Your task to perform on an android device: turn off improve location accuracy Image 0: 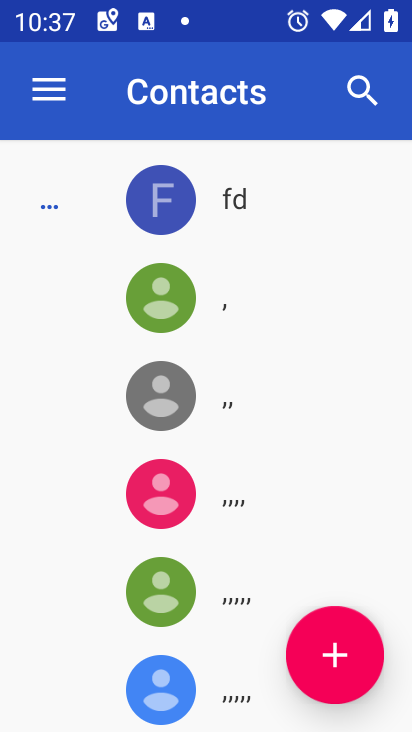
Step 0: press home button
Your task to perform on an android device: turn off improve location accuracy Image 1: 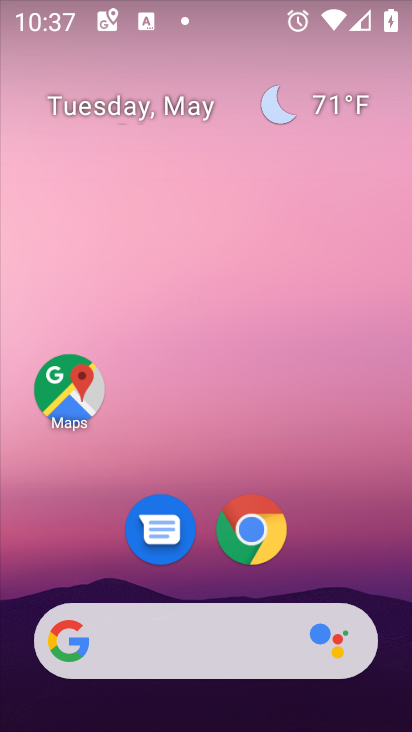
Step 1: drag from (274, 657) to (259, 182)
Your task to perform on an android device: turn off improve location accuracy Image 2: 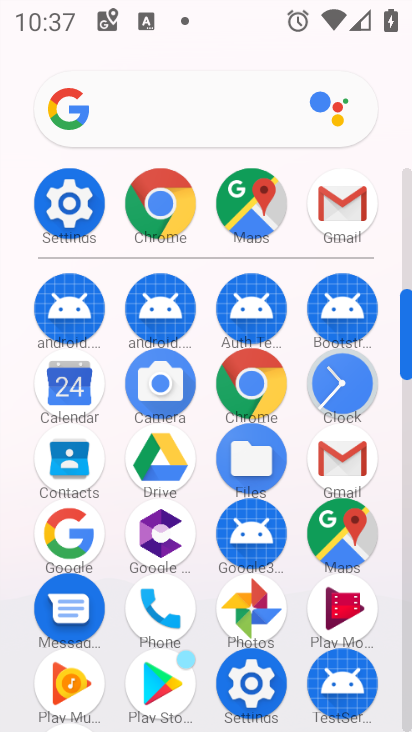
Step 2: click (92, 206)
Your task to perform on an android device: turn off improve location accuracy Image 3: 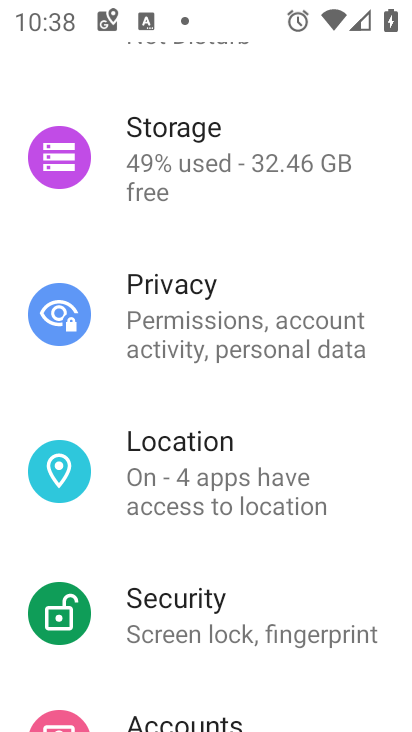
Step 3: drag from (194, 553) to (190, 444)
Your task to perform on an android device: turn off improve location accuracy Image 4: 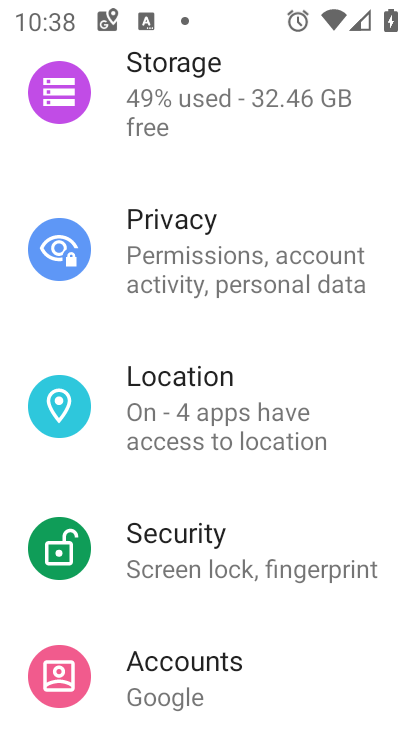
Step 4: drag from (221, 542) to (216, 418)
Your task to perform on an android device: turn off improve location accuracy Image 5: 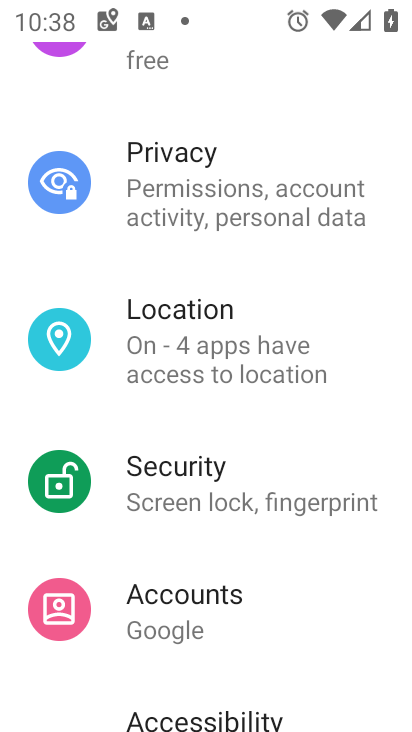
Step 5: click (261, 338)
Your task to perform on an android device: turn off improve location accuracy Image 6: 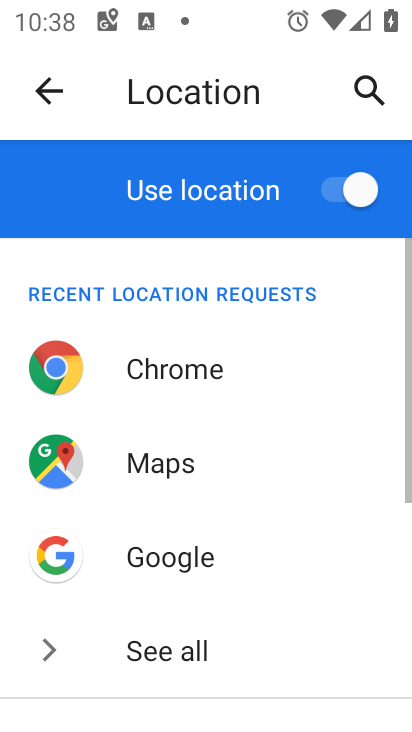
Step 6: drag from (270, 563) to (268, 482)
Your task to perform on an android device: turn off improve location accuracy Image 7: 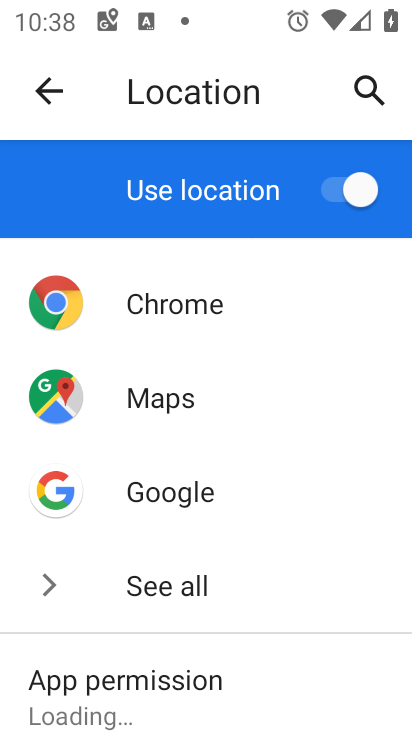
Step 7: drag from (254, 596) to (261, 318)
Your task to perform on an android device: turn off improve location accuracy Image 8: 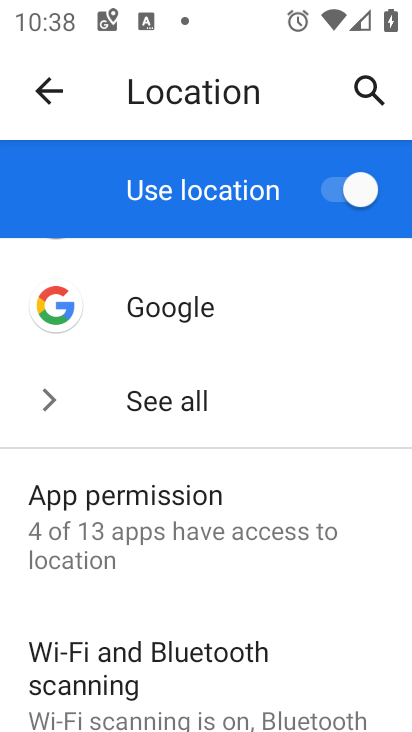
Step 8: drag from (267, 559) to (292, 337)
Your task to perform on an android device: turn off improve location accuracy Image 9: 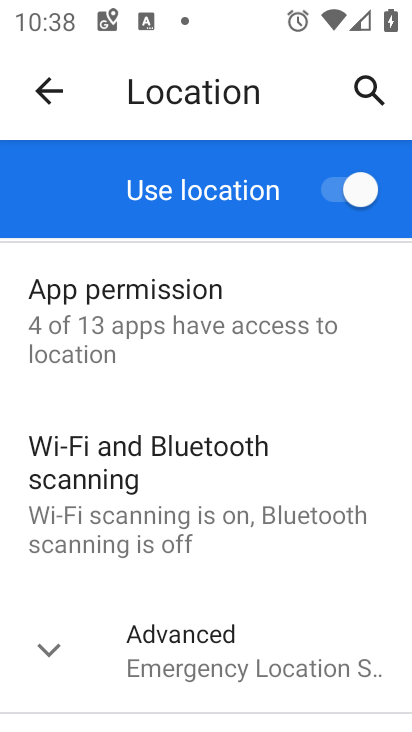
Step 9: click (230, 634)
Your task to perform on an android device: turn off improve location accuracy Image 10: 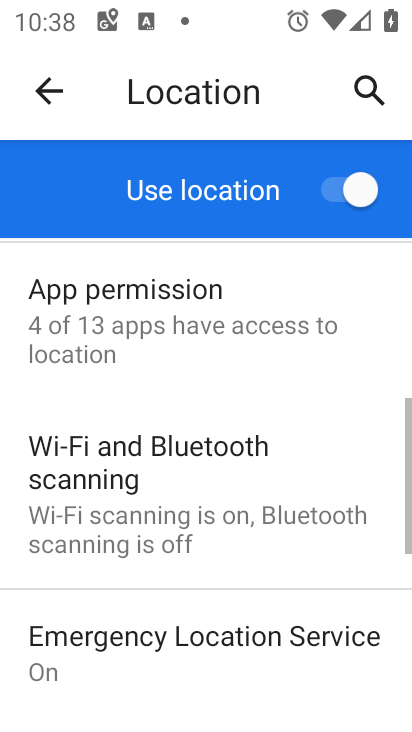
Step 10: drag from (230, 634) to (242, 400)
Your task to perform on an android device: turn off improve location accuracy Image 11: 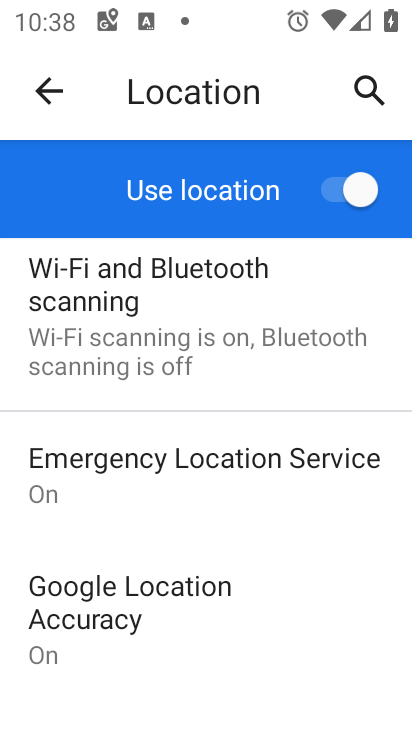
Step 11: click (184, 603)
Your task to perform on an android device: turn off improve location accuracy Image 12: 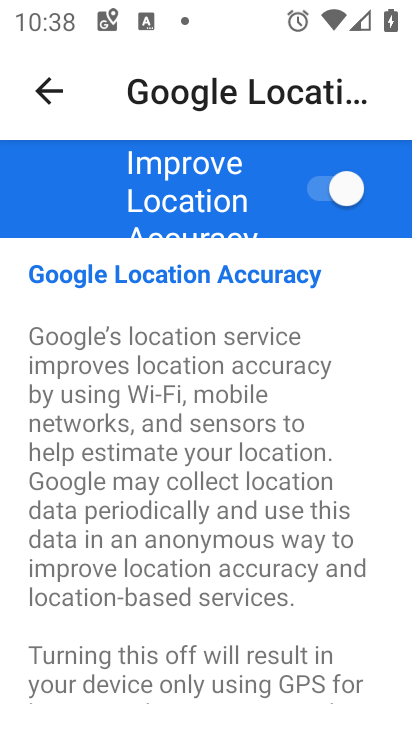
Step 12: click (312, 197)
Your task to perform on an android device: turn off improve location accuracy Image 13: 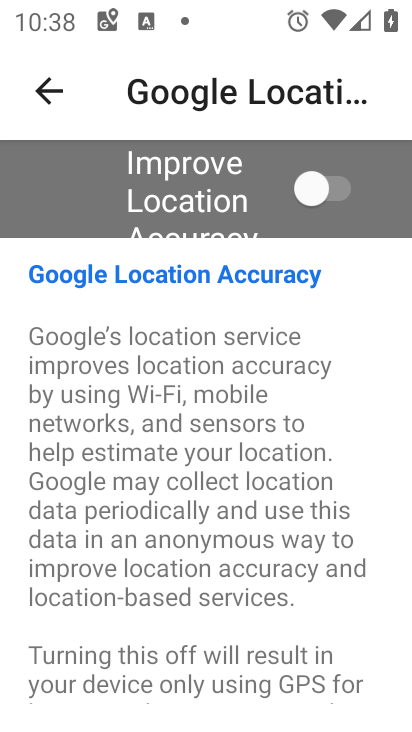
Step 13: task complete